Your task to perform on an android device: Open calendar and show me the first week of next month Image 0: 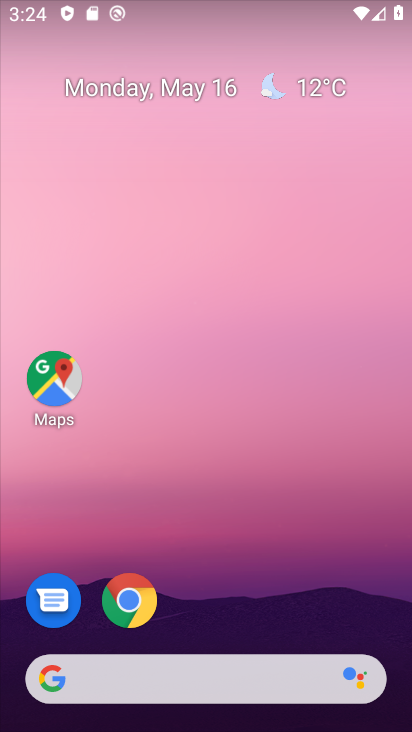
Step 0: drag from (215, 633) to (171, 195)
Your task to perform on an android device: Open calendar and show me the first week of next month Image 1: 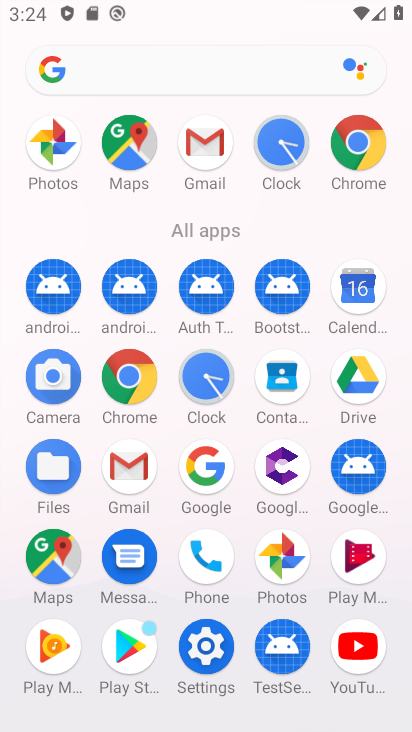
Step 1: click (358, 288)
Your task to perform on an android device: Open calendar and show me the first week of next month Image 2: 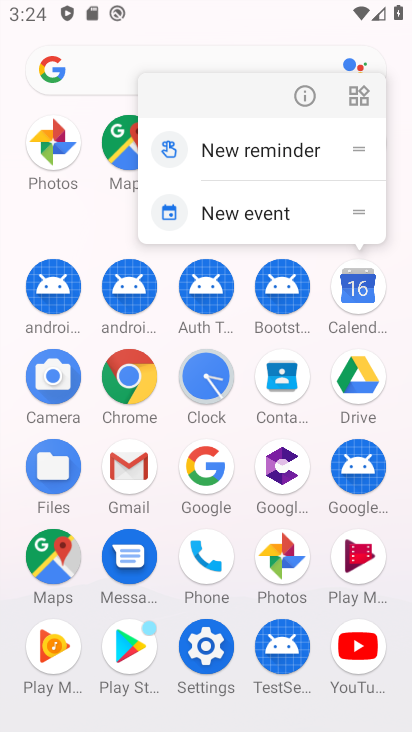
Step 2: click (360, 300)
Your task to perform on an android device: Open calendar and show me the first week of next month Image 3: 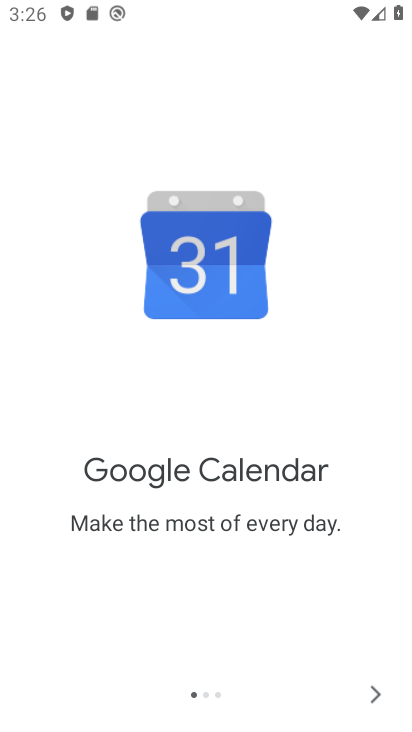
Step 3: click (366, 702)
Your task to perform on an android device: Open calendar and show me the first week of next month Image 4: 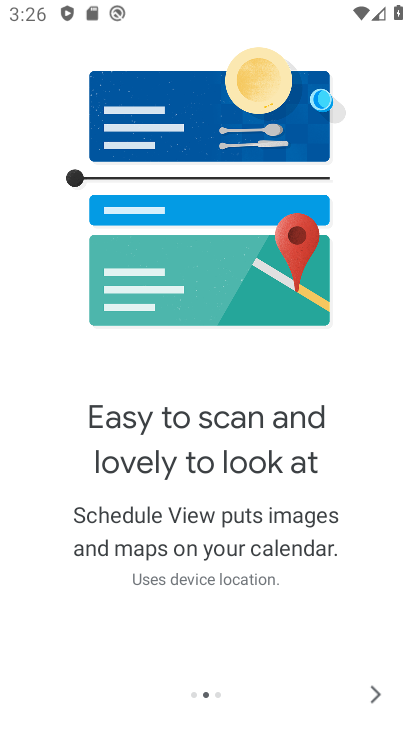
Step 4: click (373, 695)
Your task to perform on an android device: Open calendar and show me the first week of next month Image 5: 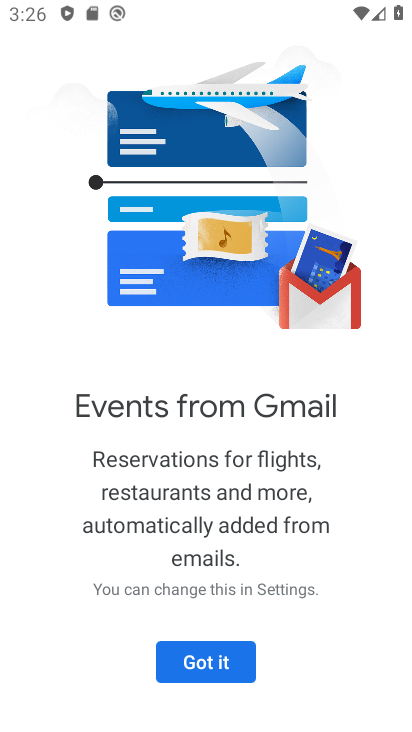
Step 5: click (192, 662)
Your task to perform on an android device: Open calendar and show me the first week of next month Image 6: 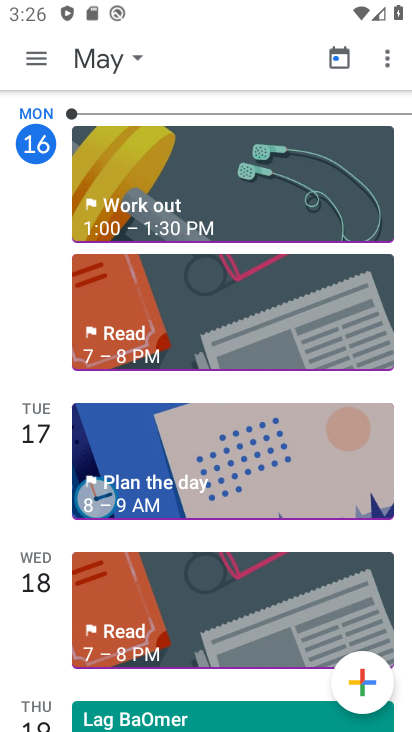
Step 6: click (113, 60)
Your task to perform on an android device: Open calendar and show me the first week of next month Image 7: 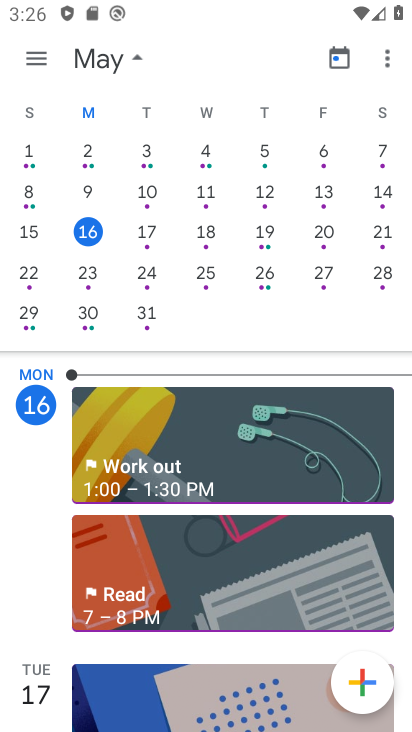
Step 7: task complete